Your task to perform on an android device: create a new album in the google photos Image 0: 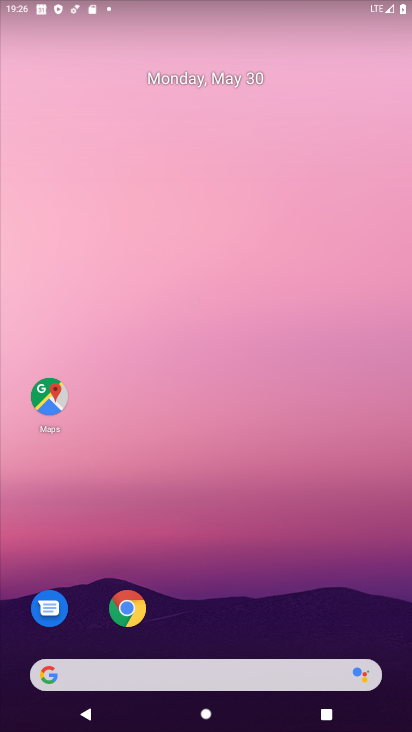
Step 0: drag from (240, 629) to (240, 274)
Your task to perform on an android device: create a new album in the google photos Image 1: 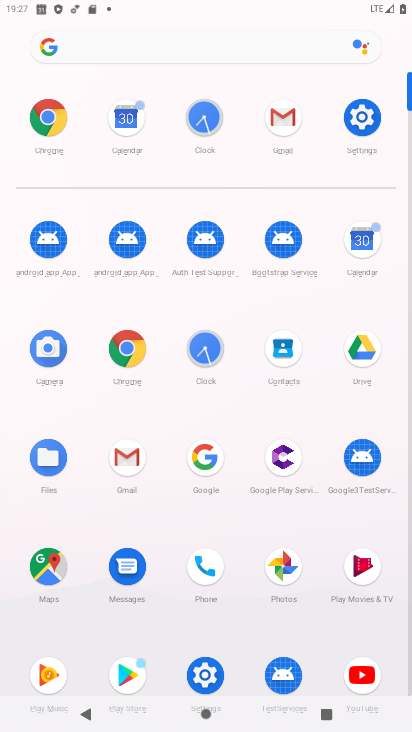
Step 1: press home button
Your task to perform on an android device: create a new album in the google photos Image 2: 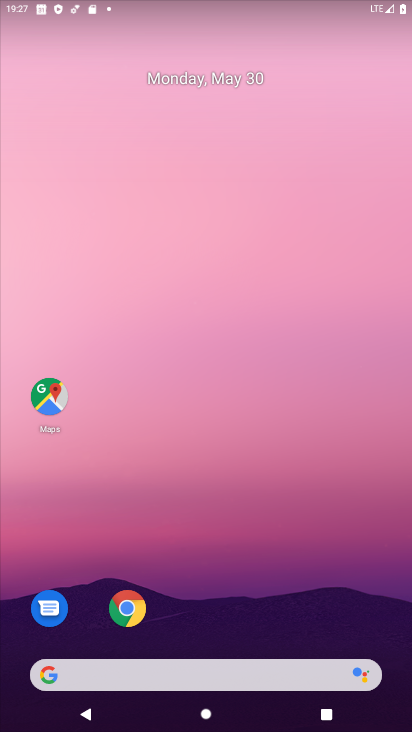
Step 2: drag from (199, 592) to (270, 141)
Your task to perform on an android device: create a new album in the google photos Image 3: 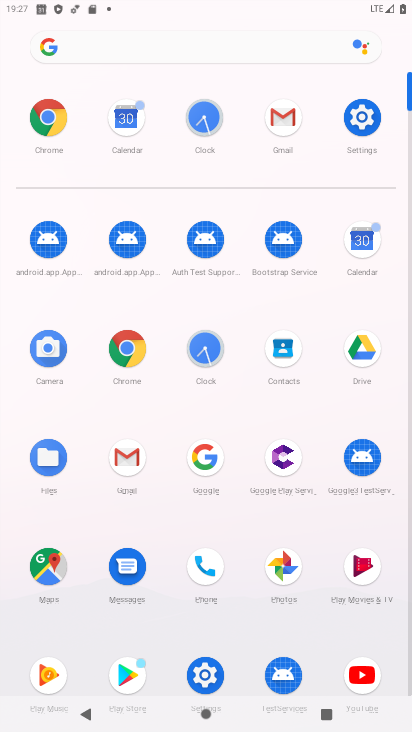
Step 3: click (286, 574)
Your task to perform on an android device: create a new album in the google photos Image 4: 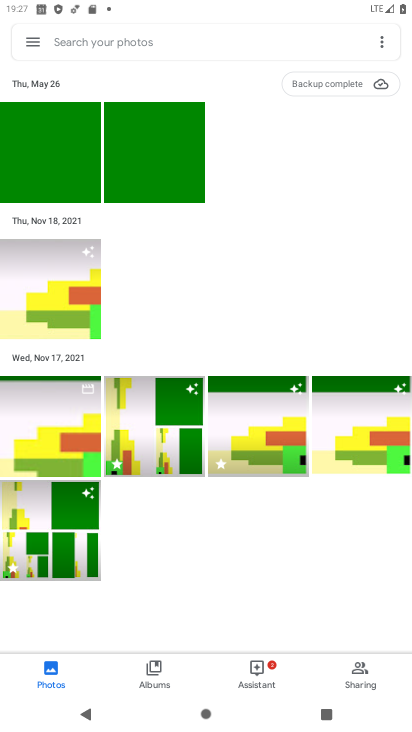
Step 4: click (161, 672)
Your task to perform on an android device: create a new album in the google photos Image 5: 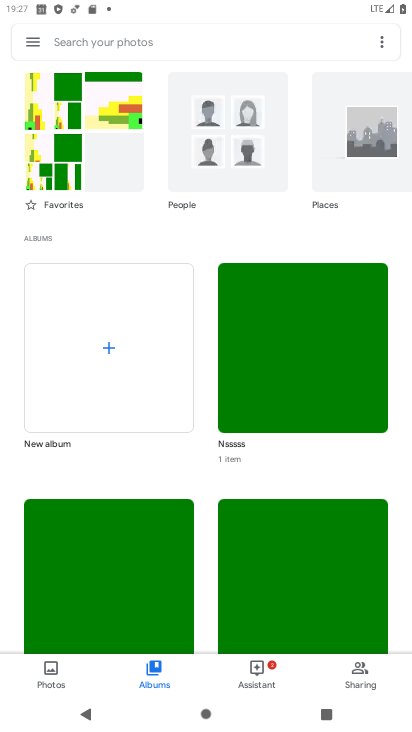
Step 5: click (114, 353)
Your task to perform on an android device: create a new album in the google photos Image 6: 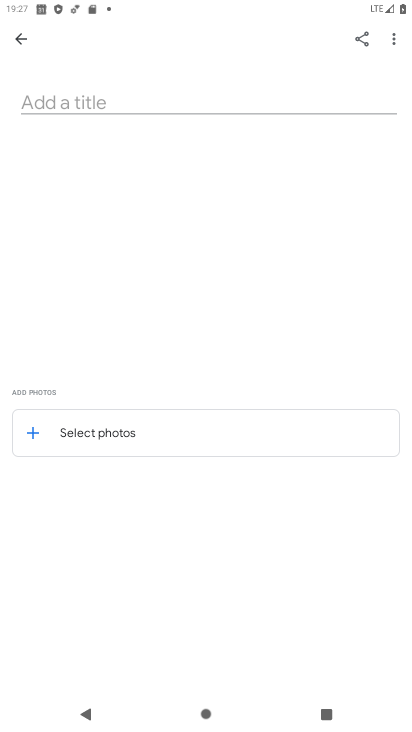
Step 6: click (92, 438)
Your task to perform on an android device: create a new album in the google photos Image 7: 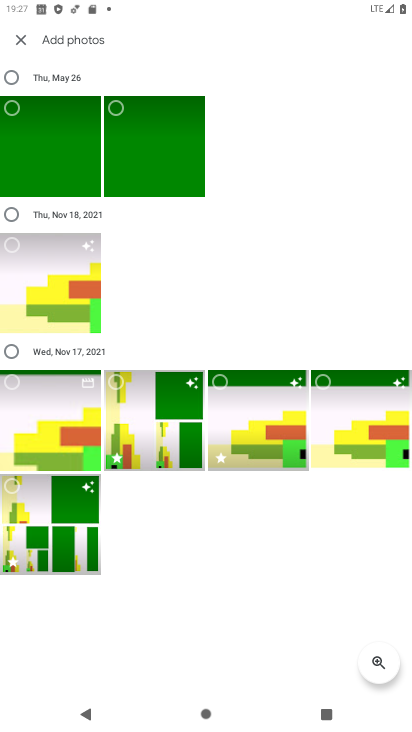
Step 7: click (10, 243)
Your task to perform on an android device: create a new album in the google photos Image 8: 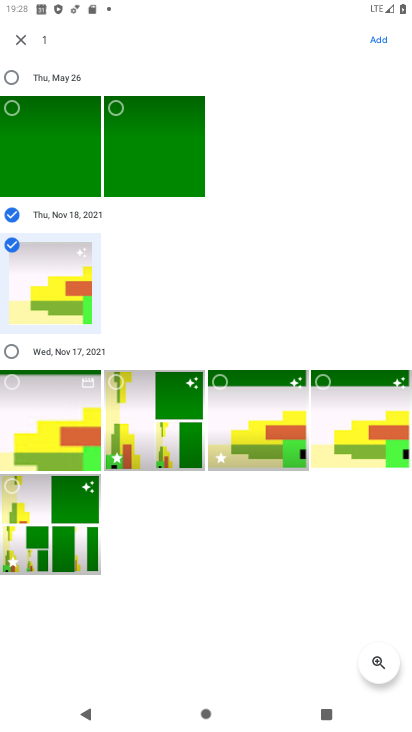
Step 8: click (374, 41)
Your task to perform on an android device: create a new album in the google photos Image 9: 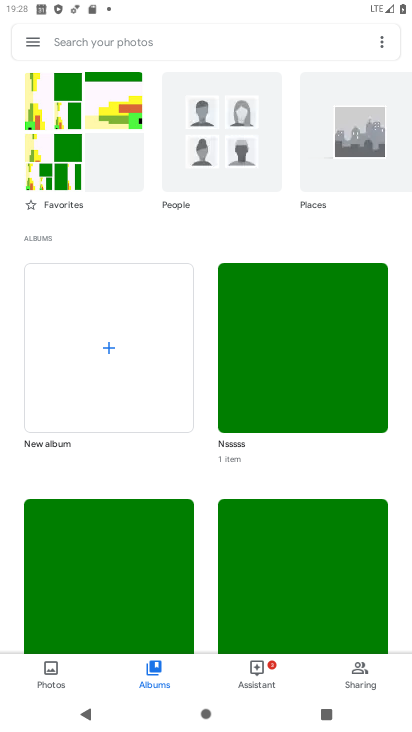
Step 9: task complete